Your task to perform on an android device: Turn on the flashlight Image 0: 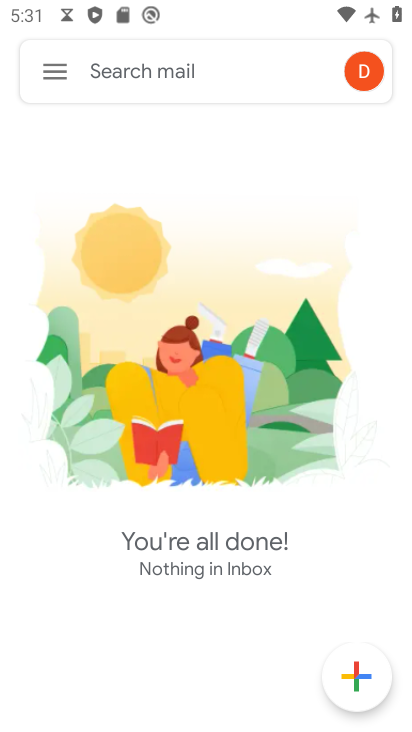
Step 0: press home button
Your task to perform on an android device: Turn on the flashlight Image 1: 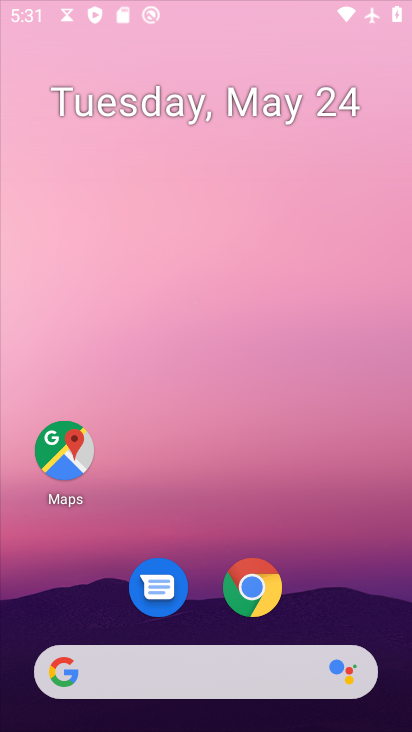
Step 1: task complete